Your task to perform on an android device: toggle improve location accuracy Image 0: 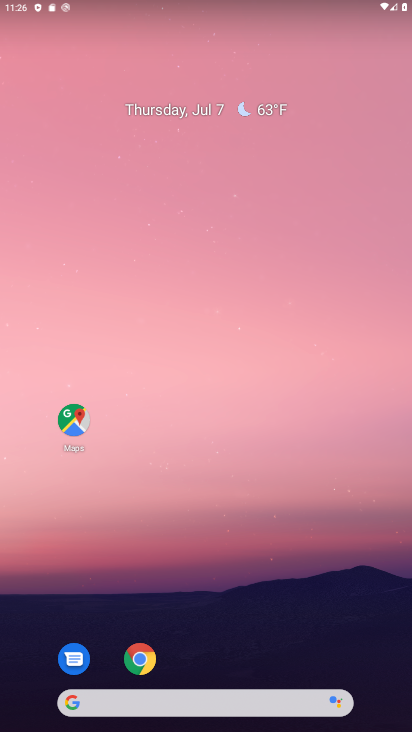
Step 0: drag from (229, 652) to (250, 6)
Your task to perform on an android device: toggle improve location accuracy Image 1: 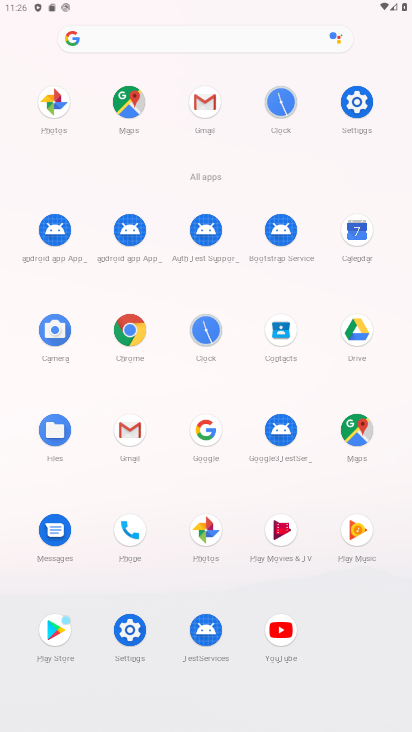
Step 1: click (135, 641)
Your task to perform on an android device: toggle improve location accuracy Image 2: 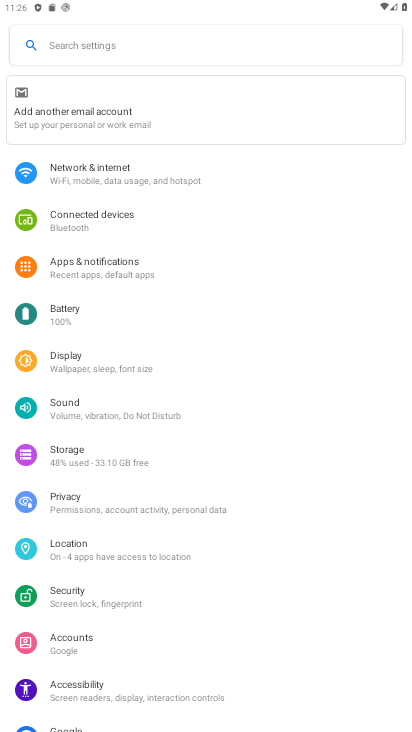
Step 2: click (98, 546)
Your task to perform on an android device: toggle improve location accuracy Image 3: 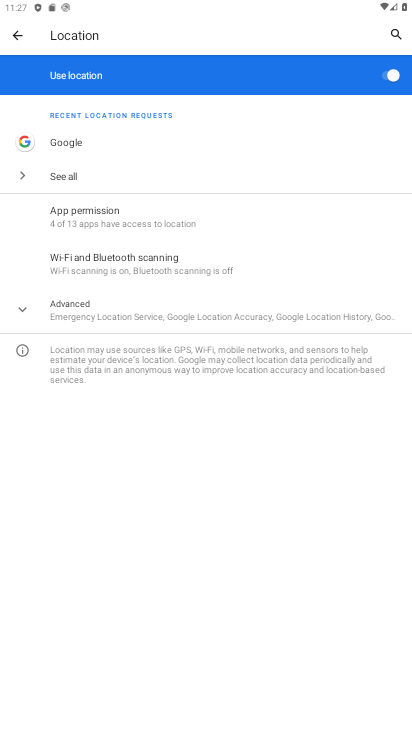
Step 3: click (105, 311)
Your task to perform on an android device: toggle improve location accuracy Image 4: 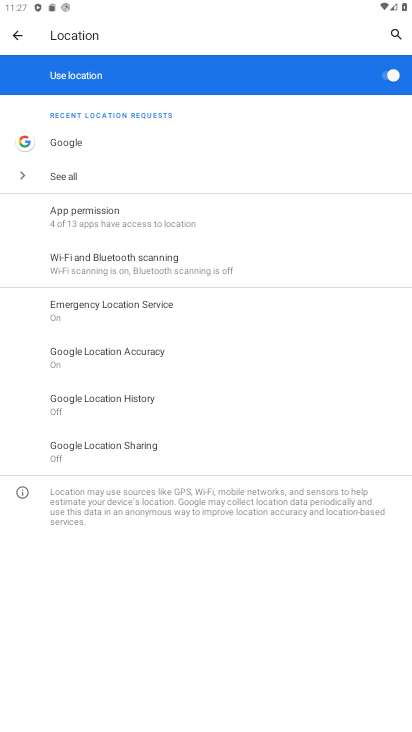
Step 4: click (139, 355)
Your task to perform on an android device: toggle improve location accuracy Image 5: 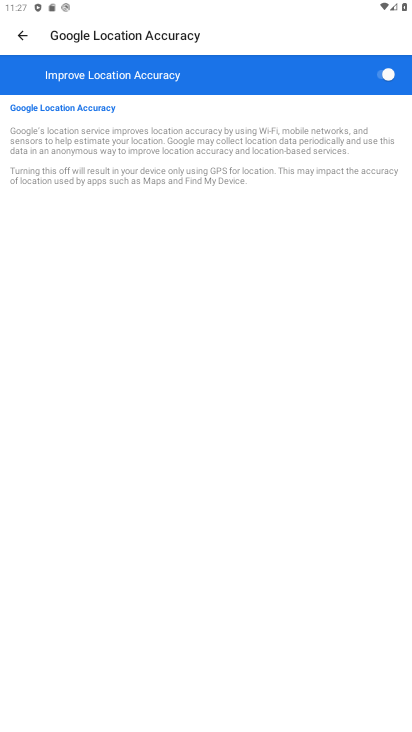
Step 5: click (369, 76)
Your task to perform on an android device: toggle improve location accuracy Image 6: 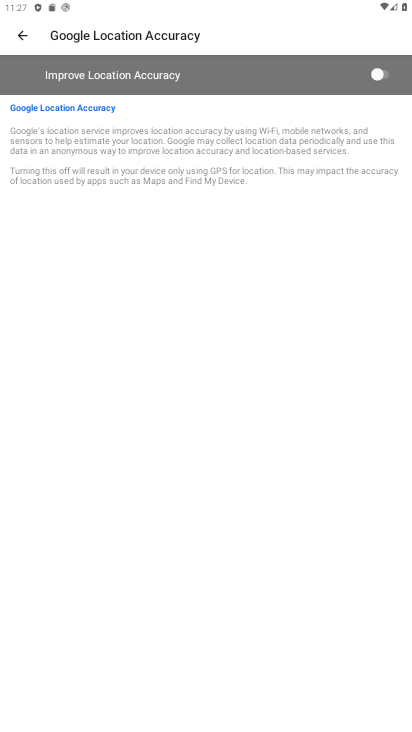
Step 6: task complete